Your task to perform on an android device: Search for sushi restaurants on Maps Image 0: 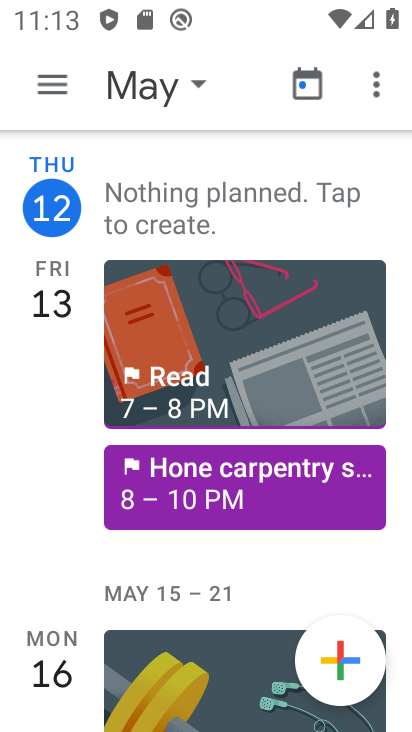
Step 0: press home button
Your task to perform on an android device: Search for sushi restaurants on Maps Image 1: 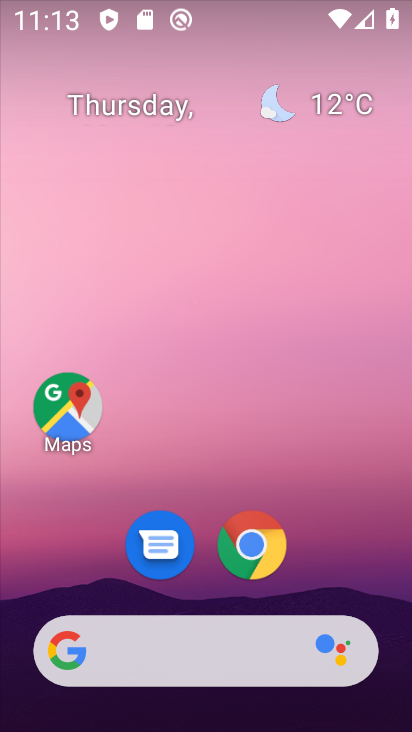
Step 1: click (77, 433)
Your task to perform on an android device: Search for sushi restaurants on Maps Image 2: 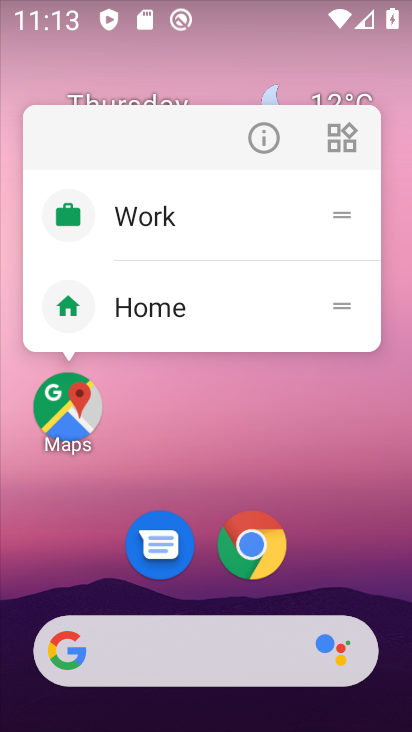
Step 2: click (69, 429)
Your task to perform on an android device: Search for sushi restaurants on Maps Image 3: 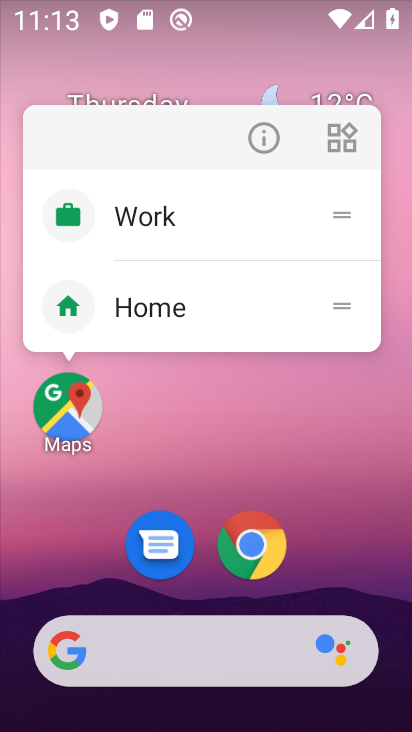
Step 3: click (69, 429)
Your task to perform on an android device: Search for sushi restaurants on Maps Image 4: 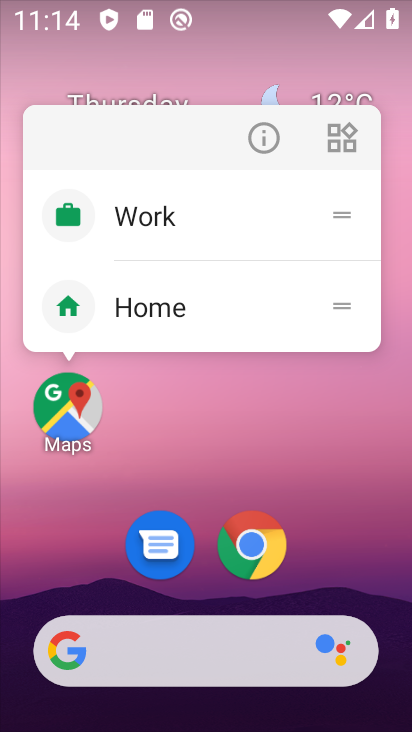
Step 4: click (74, 417)
Your task to perform on an android device: Search for sushi restaurants on Maps Image 5: 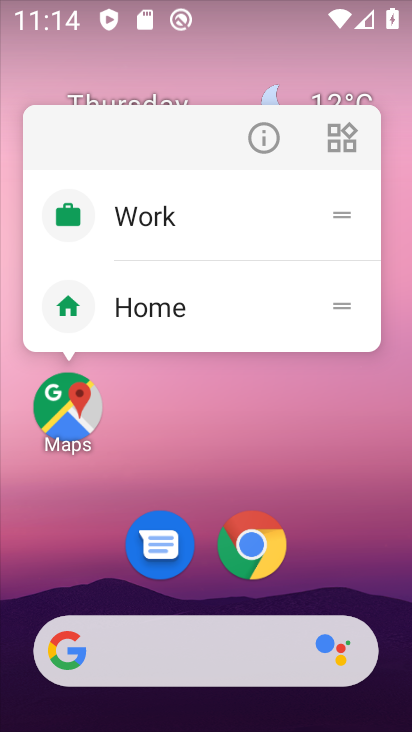
Step 5: click (52, 438)
Your task to perform on an android device: Search for sushi restaurants on Maps Image 6: 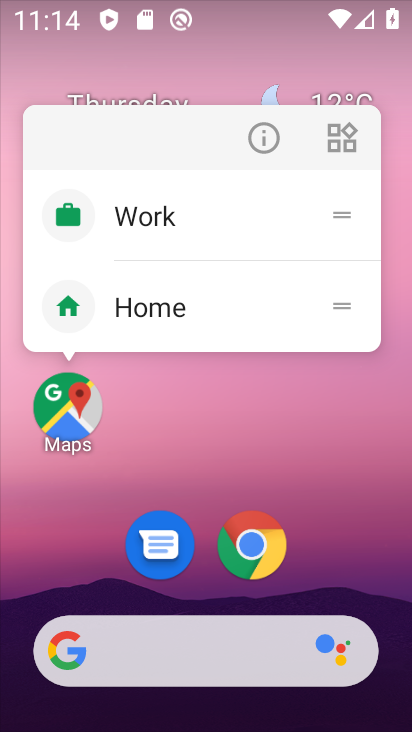
Step 6: click (86, 409)
Your task to perform on an android device: Search for sushi restaurants on Maps Image 7: 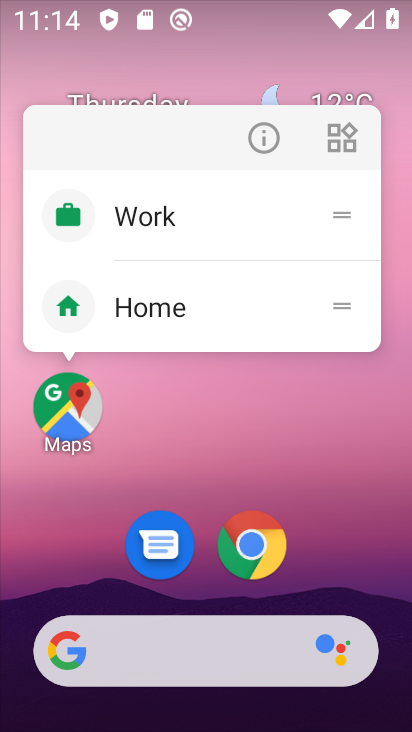
Step 7: click (84, 410)
Your task to perform on an android device: Search for sushi restaurants on Maps Image 8: 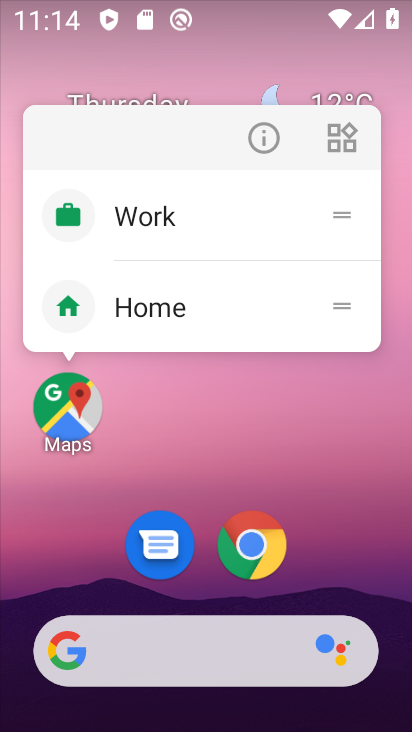
Step 8: click (84, 417)
Your task to perform on an android device: Search for sushi restaurants on Maps Image 9: 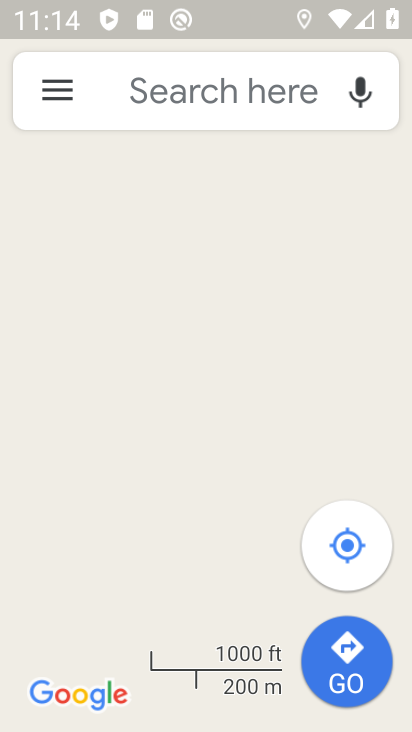
Step 9: click (137, 84)
Your task to perform on an android device: Search for sushi restaurants on Maps Image 10: 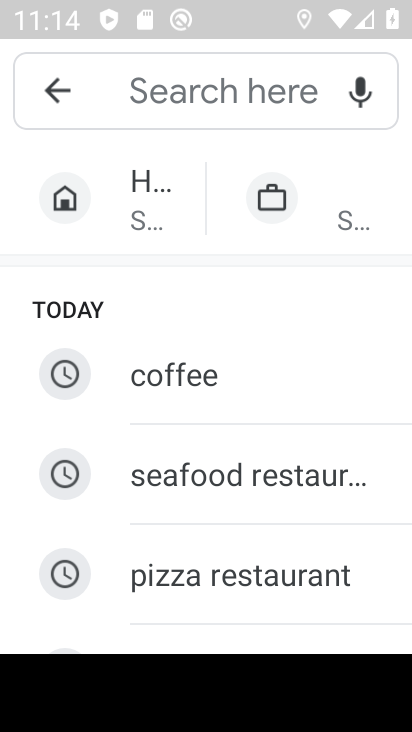
Step 10: type "sushi restaurant"
Your task to perform on an android device: Search for sushi restaurants on Maps Image 11: 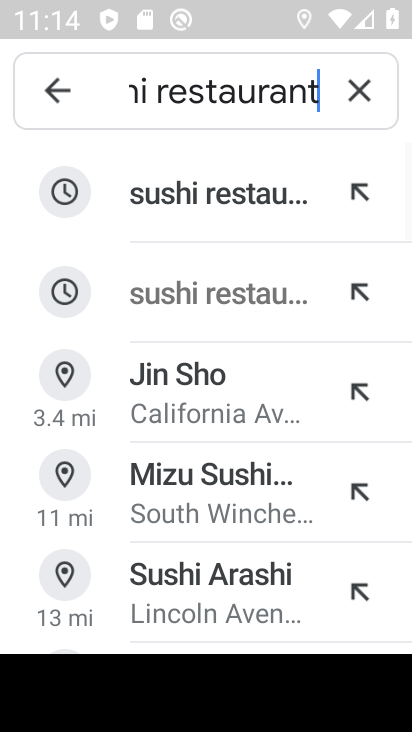
Step 11: click (257, 220)
Your task to perform on an android device: Search for sushi restaurants on Maps Image 12: 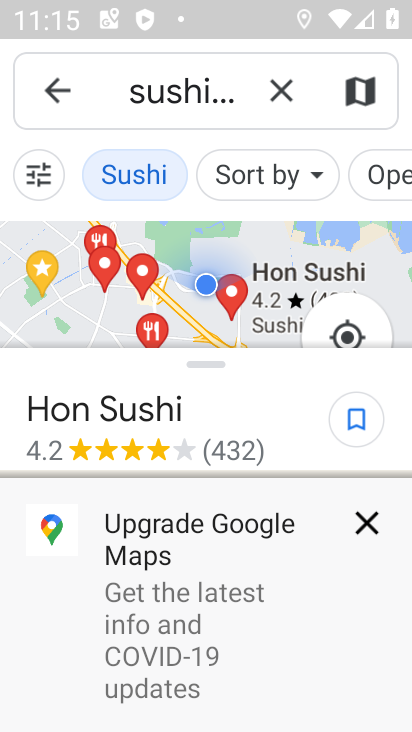
Step 12: task complete